Your task to perform on an android device: turn notification dots on Image 0: 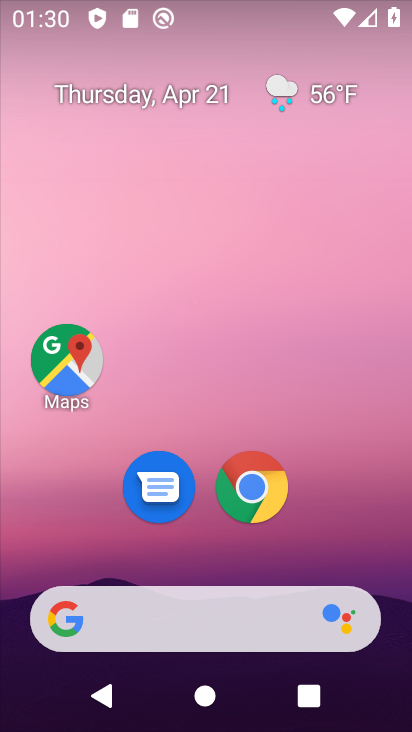
Step 0: drag from (341, 522) to (333, 87)
Your task to perform on an android device: turn notification dots on Image 1: 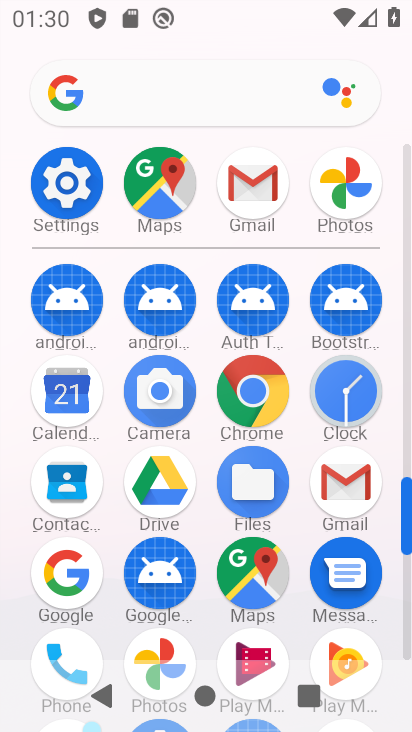
Step 1: click (61, 183)
Your task to perform on an android device: turn notification dots on Image 2: 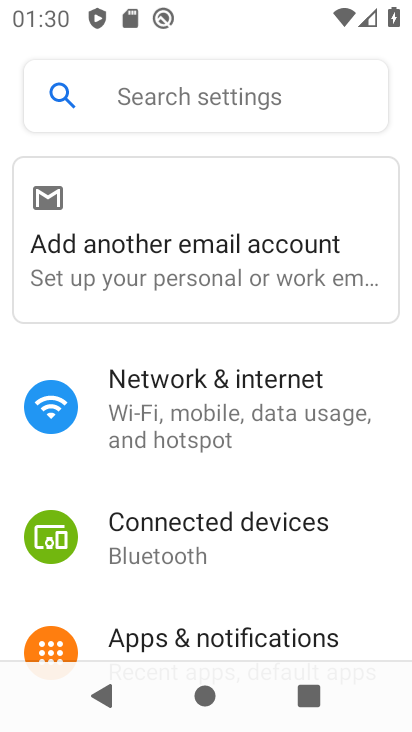
Step 2: click (142, 641)
Your task to perform on an android device: turn notification dots on Image 3: 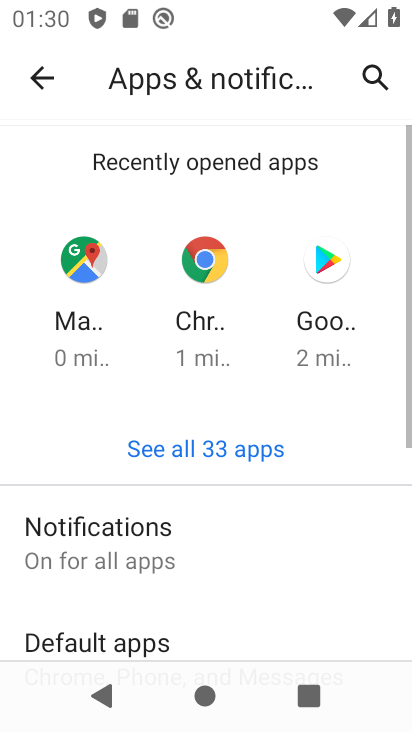
Step 3: click (172, 561)
Your task to perform on an android device: turn notification dots on Image 4: 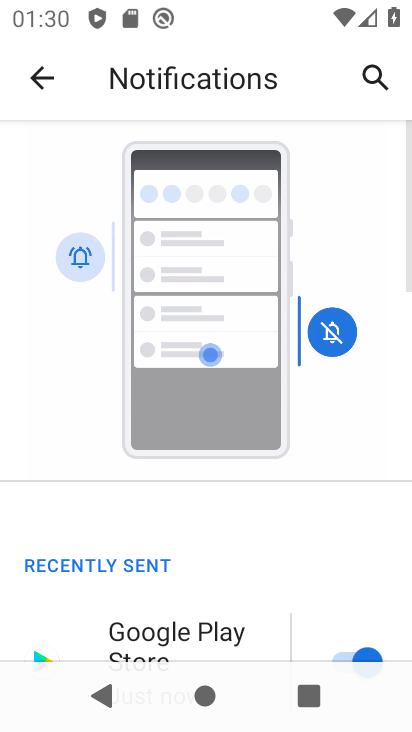
Step 4: drag from (198, 544) to (253, 368)
Your task to perform on an android device: turn notification dots on Image 5: 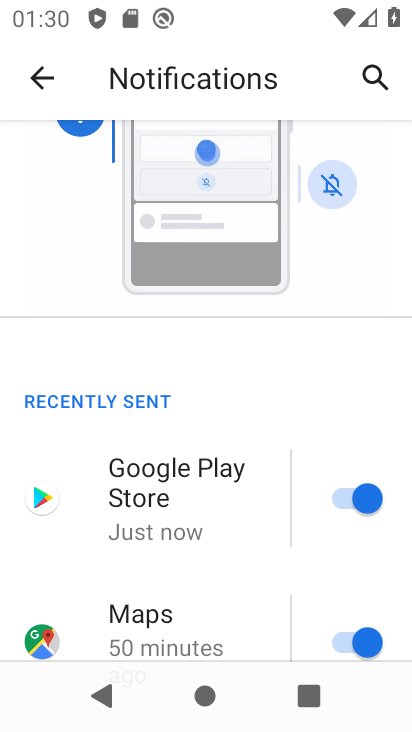
Step 5: drag from (224, 450) to (225, 299)
Your task to perform on an android device: turn notification dots on Image 6: 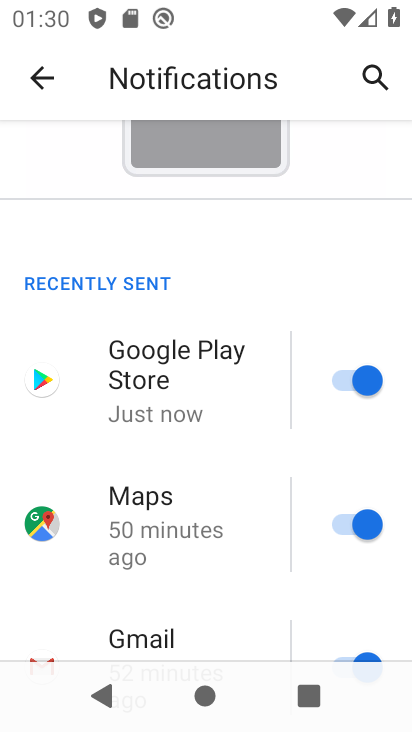
Step 6: drag from (187, 441) to (209, 270)
Your task to perform on an android device: turn notification dots on Image 7: 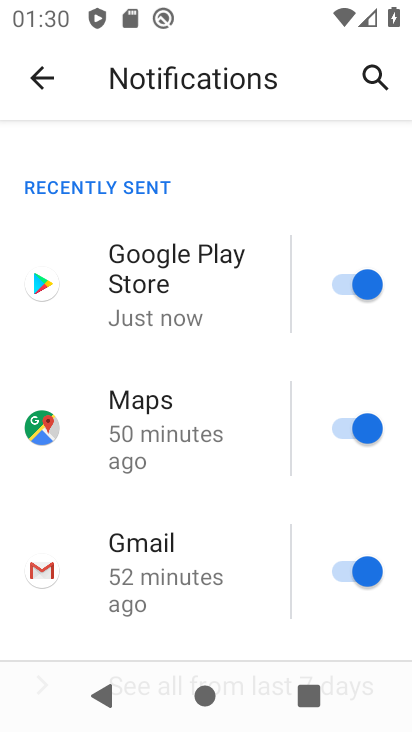
Step 7: drag from (173, 404) to (201, 267)
Your task to perform on an android device: turn notification dots on Image 8: 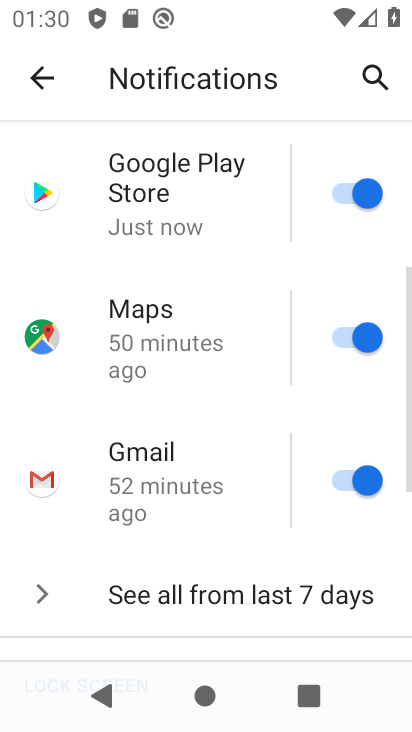
Step 8: drag from (164, 449) to (180, 298)
Your task to perform on an android device: turn notification dots on Image 9: 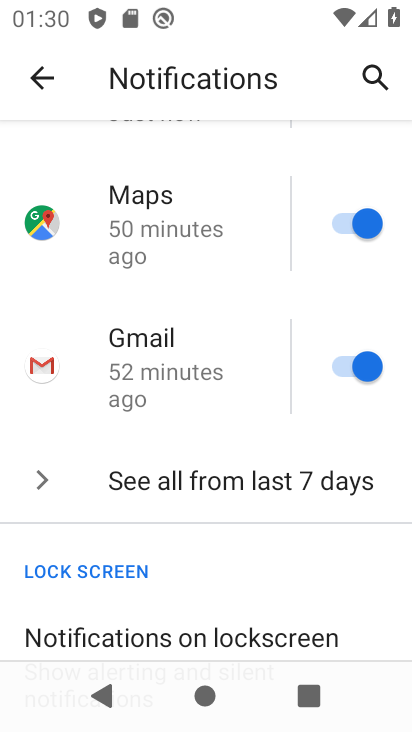
Step 9: drag from (192, 418) to (203, 292)
Your task to perform on an android device: turn notification dots on Image 10: 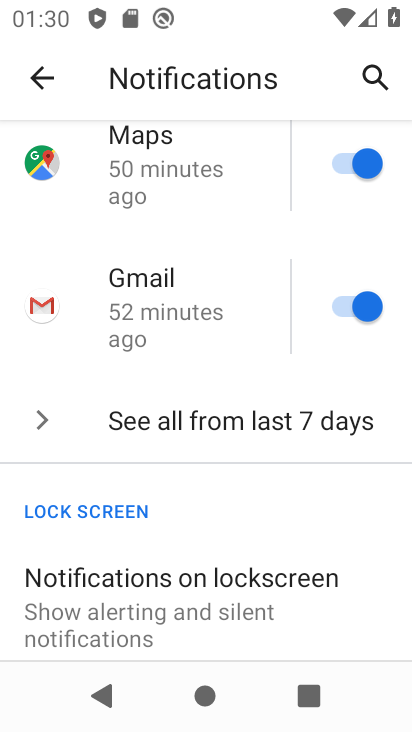
Step 10: drag from (181, 373) to (212, 243)
Your task to perform on an android device: turn notification dots on Image 11: 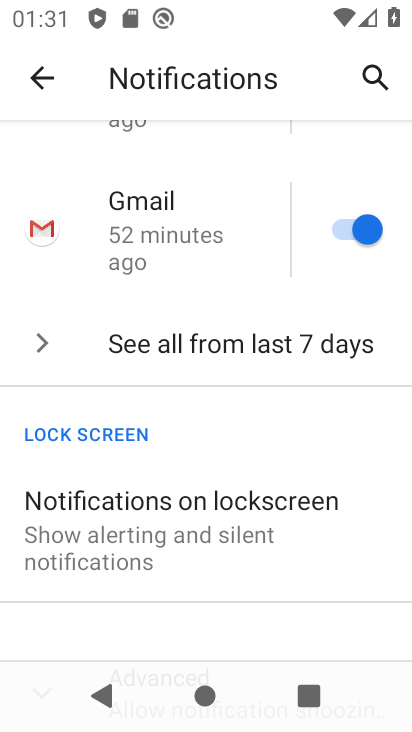
Step 11: drag from (197, 401) to (210, 257)
Your task to perform on an android device: turn notification dots on Image 12: 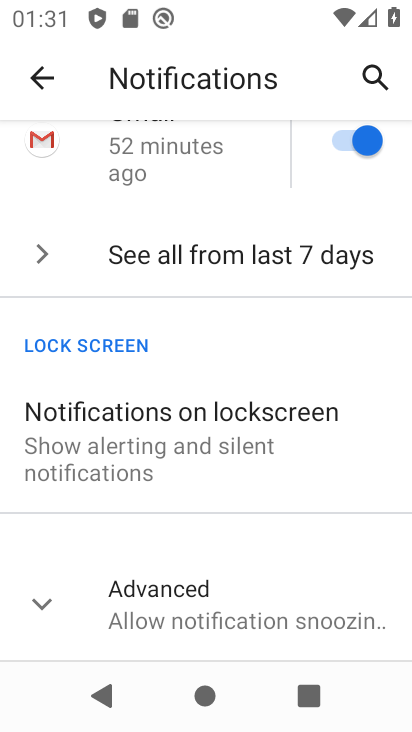
Step 12: drag from (194, 389) to (219, 262)
Your task to perform on an android device: turn notification dots on Image 13: 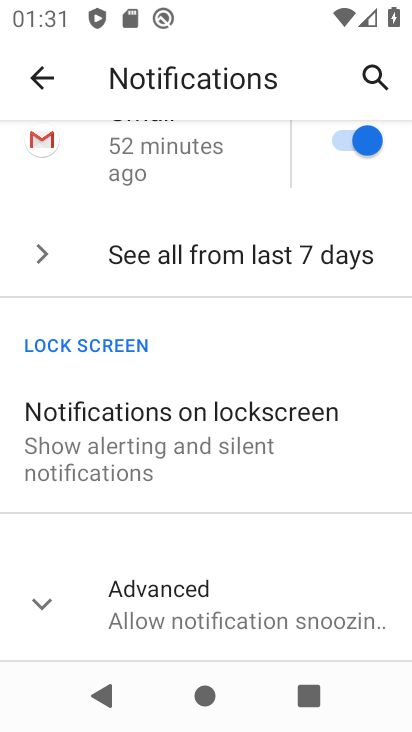
Step 13: click (143, 593)
Your task to perform on an android device: turn notification dots on Image 14: 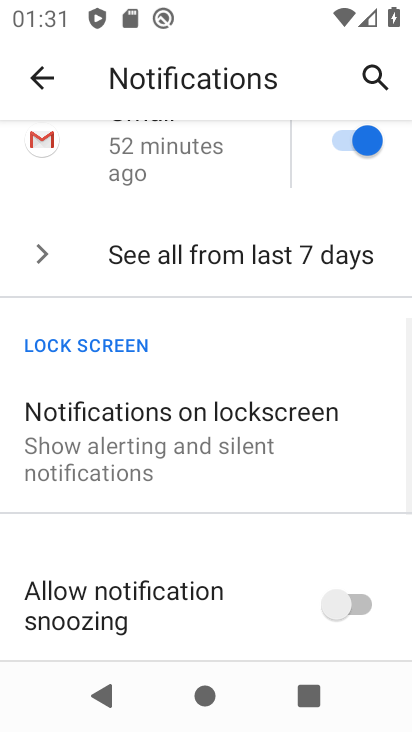
Step 14: task complete